Your task to perform on an android device: delete browsing data in the chrome app Image 0: 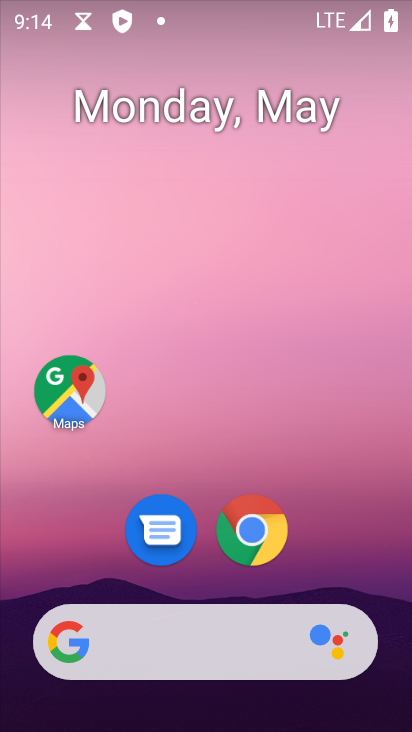
Step 0: drag from (309, 500) to (218, 69)
Your task to perform on an android device: delete browsing data in the chrome app Image 1: 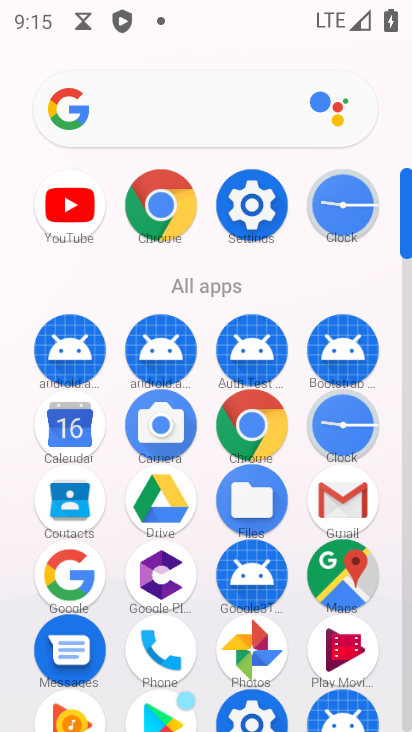
Step 1: click (163, 195)
Your task to perform on an android device: delete browsing data in the chrome app Image 2: 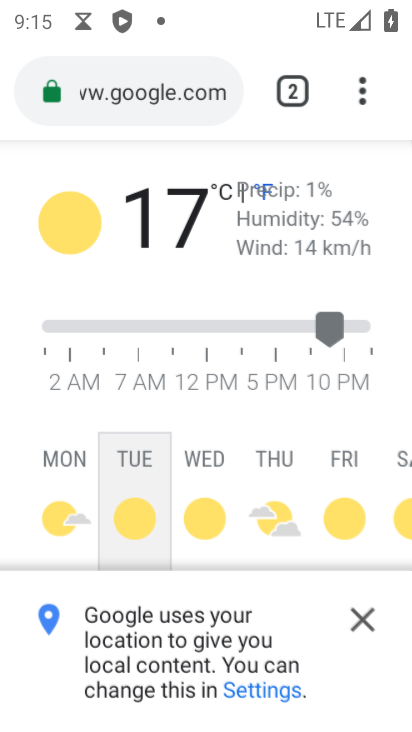
Step 2: drag from (366, 97) to (111, 509)
Your task to perform on an android device: delete browsing data in the chrome app Image 3: 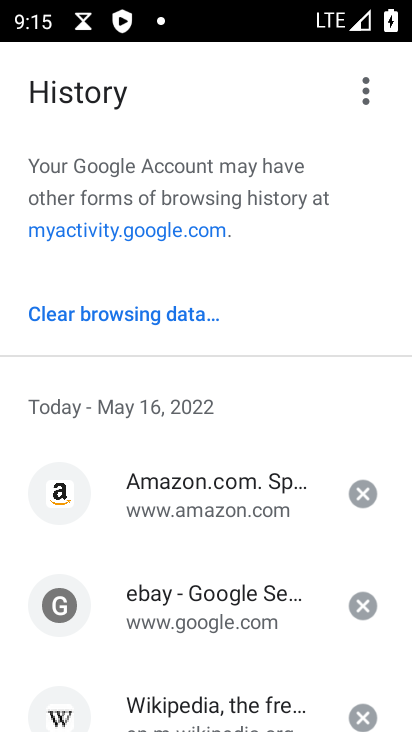
Step 3: click (142, 307)
Your task to perform on an android device: delete browsing data in the chrome app Image 4: 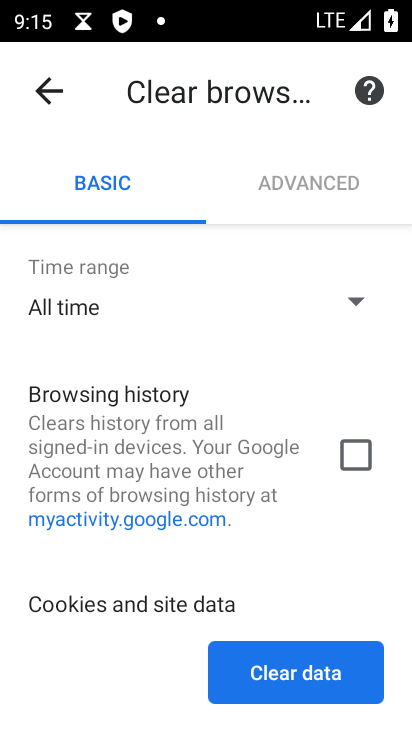
Step 4: click (340, 455)
Your task to perform on an android device: delete browsing data in the chrome app Image 5: 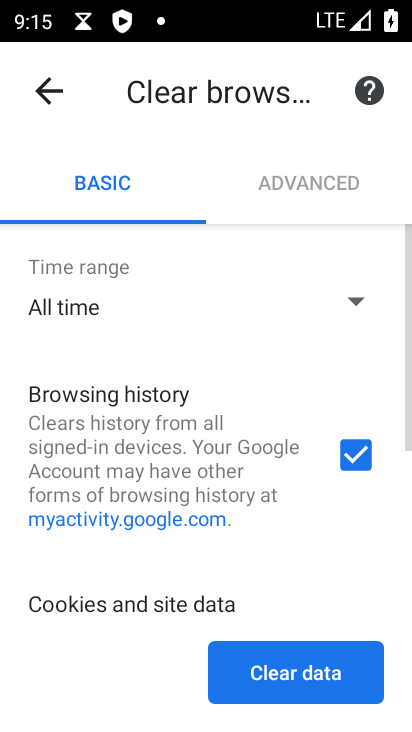
Step 5: click (305, 663)
Your task to perform on an android device: delete browsing data in the chrome app Image 6: 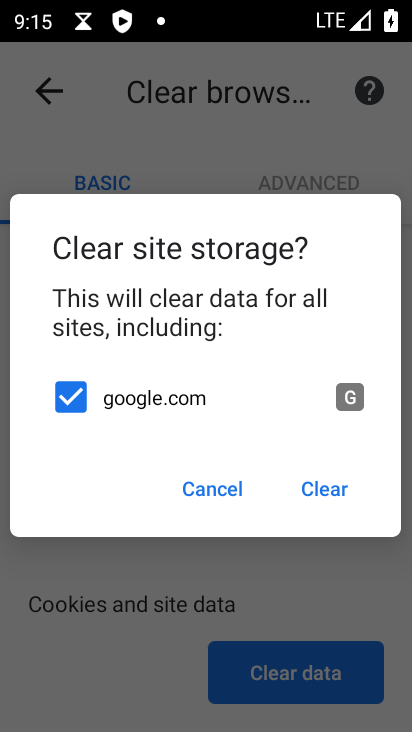
Step 6: click (329, 485)
Your task to perform on an android device: delete browsing data in the chrome app Image 7: 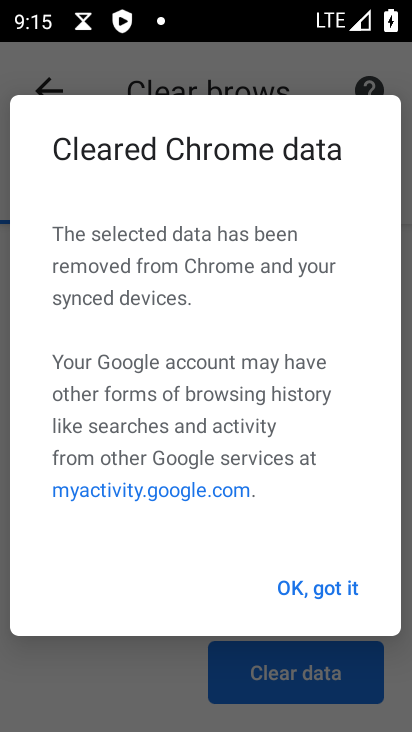
Step 7: click (273, 591)
Your task to perform on an android device: delete browsing data in the chrome app Image 8: 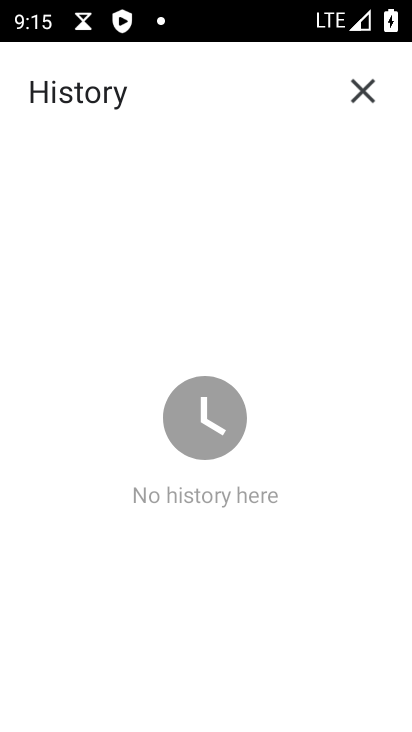
Step 8: task complete